Your task to perform on an android device: read, delete, or share a saved page in the chrome app Image 0: 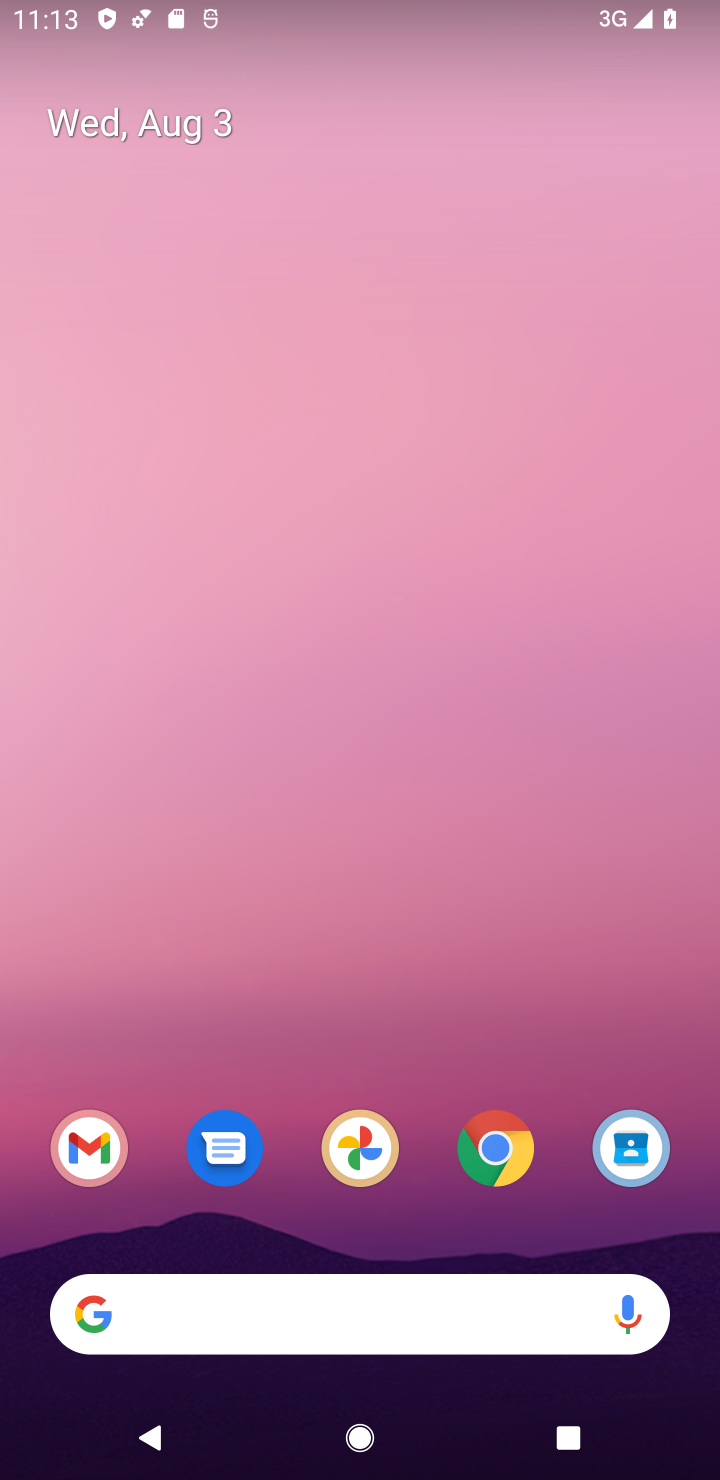
Step 0: drag from (598, 437) to (644, 220)
Your task to perform on an android device: read, delete, or share a saved page in the chrome app Image 1: 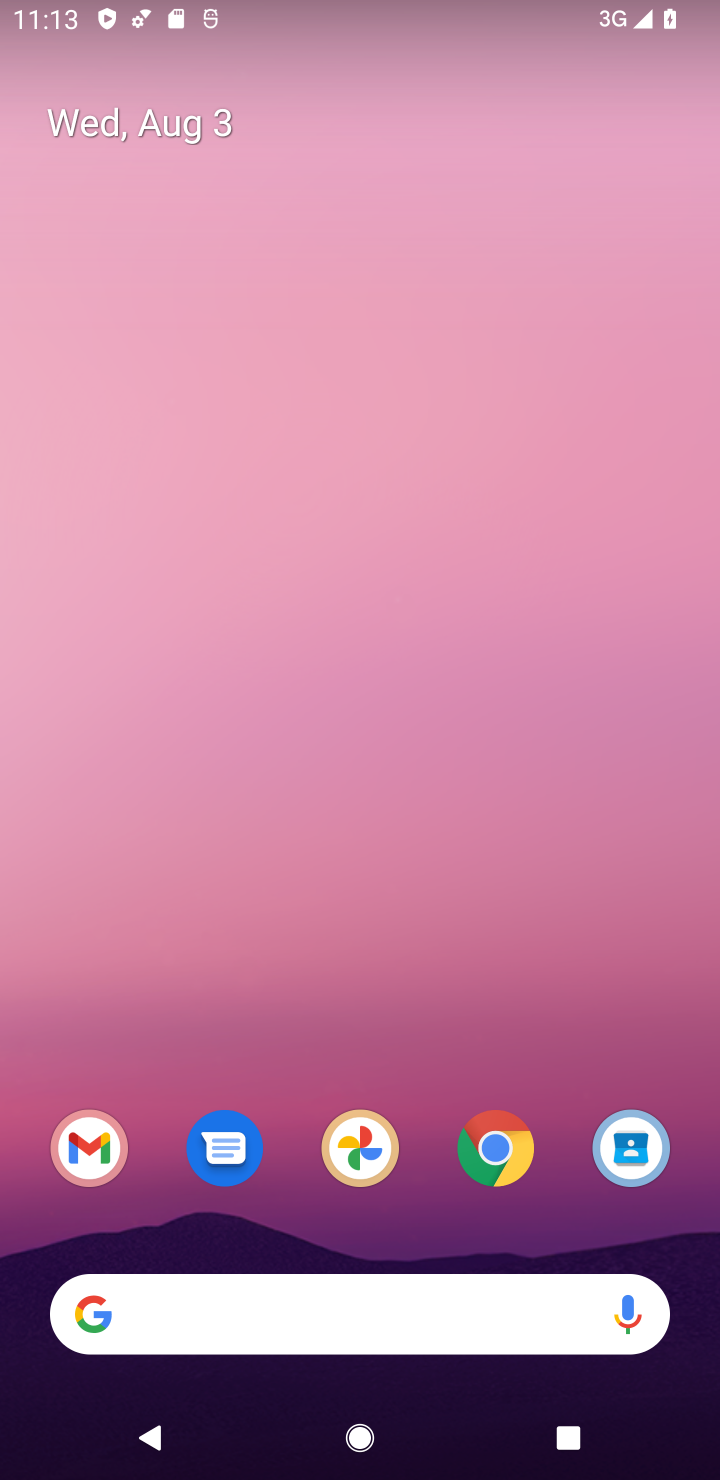
Step 1: drag from (435, 1049) to (559, 158)
Your task to perform on an android device: read, delete, or share a saved page in the chrome app Image 2: 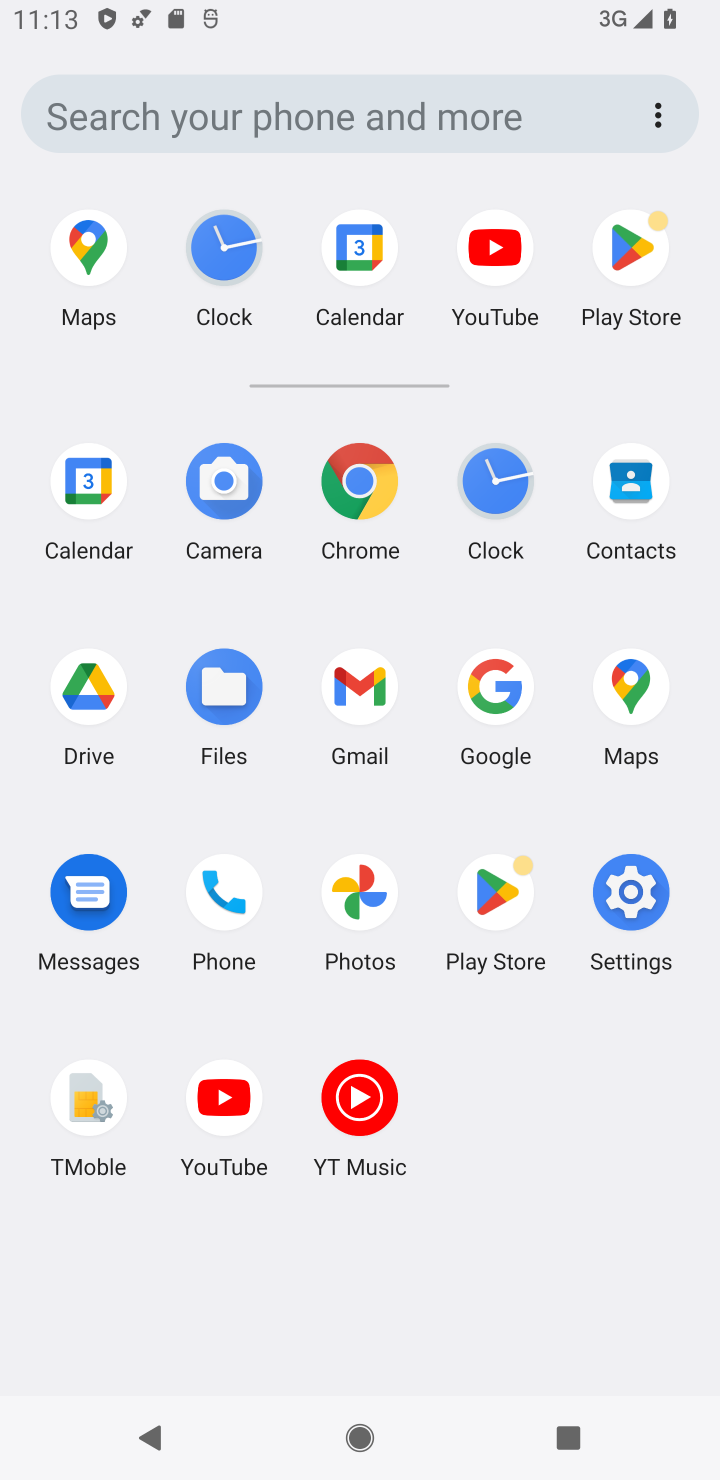
Step 2: click (362, 505)
Your task to perform on an android device: read, delete, or share a saved page in the chrome app Image 3: 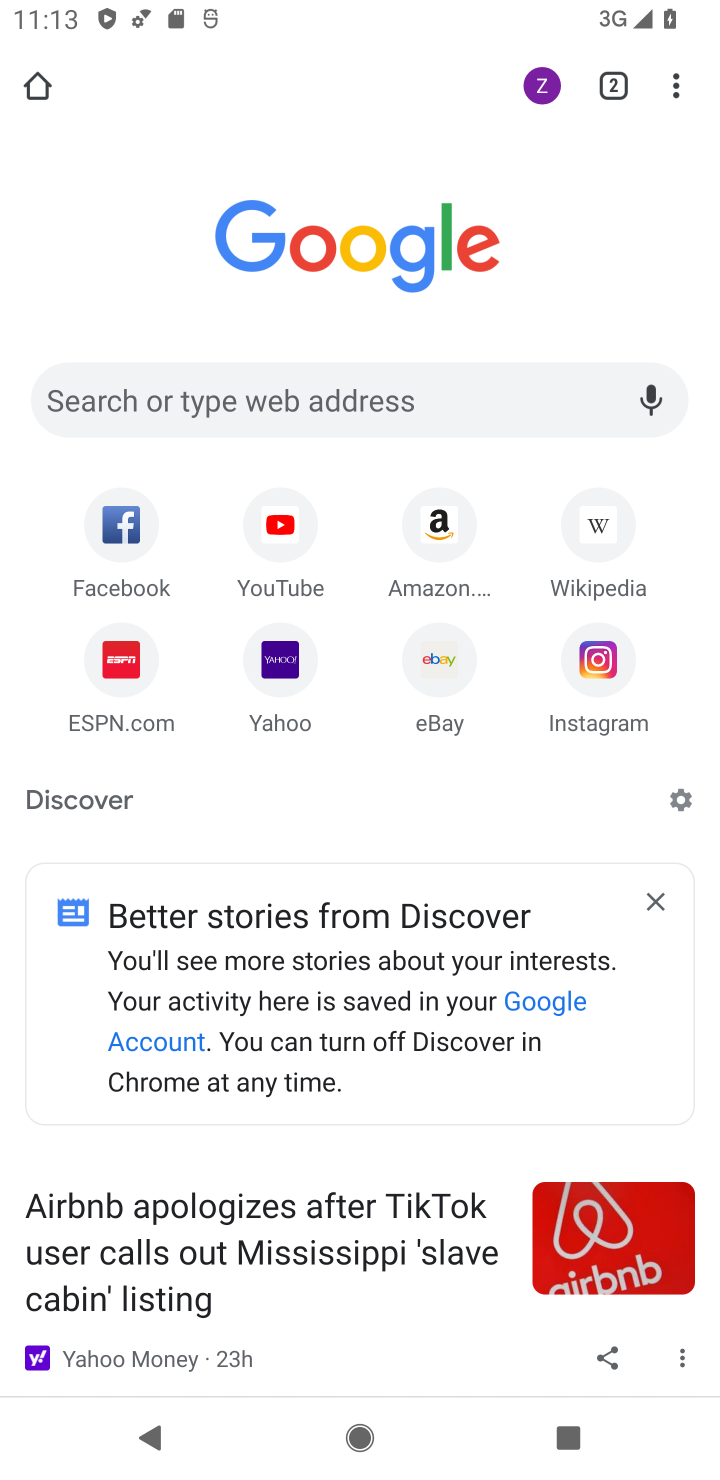
Step 3: task complete